Your task to perform on an android device: Open notification settings Image 0: 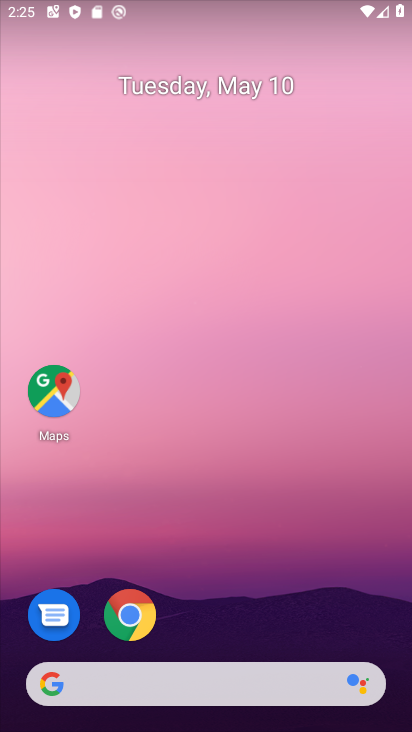
Step 0: drag from (254, 608) to (277, 60)
Your task to perform on an android device: Open notification settings Image 1: 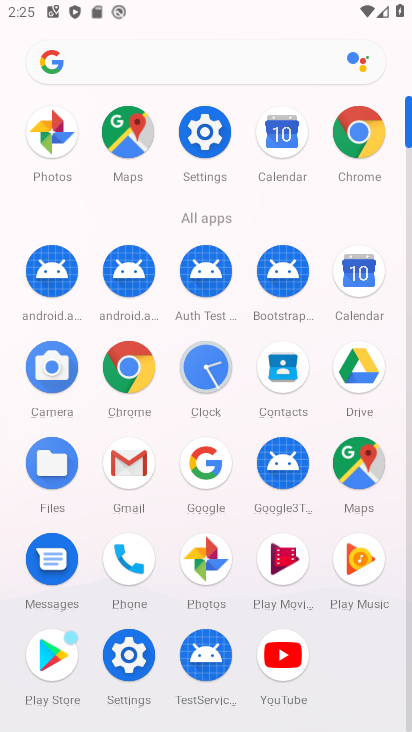
Step 1: click (110, 655)
Your task to perform on an android device: Open notification settings Image 2: 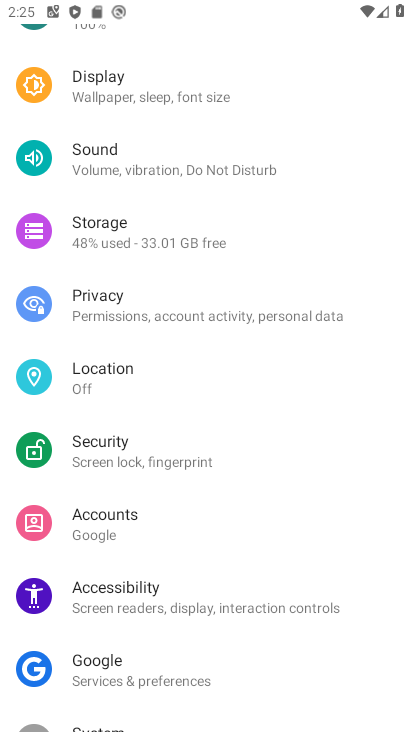
Step 2: drag from (234, 645) to (267, 666)
Your task to perform on an android device: Open notification settings Image 3: 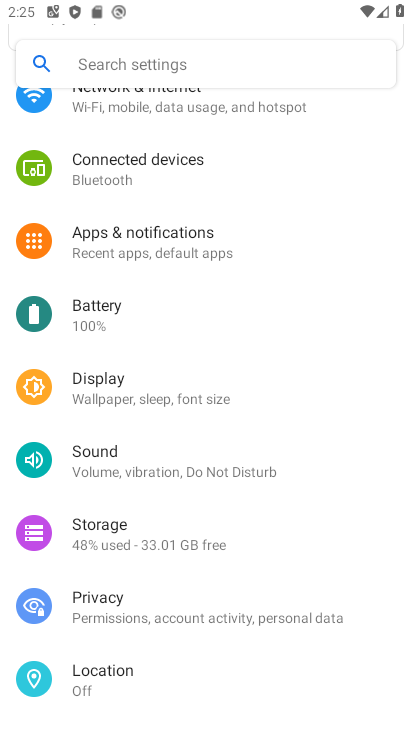
Step 3: click (178, 238)
Your task to perform on an android device: Open notification settings Image 4: 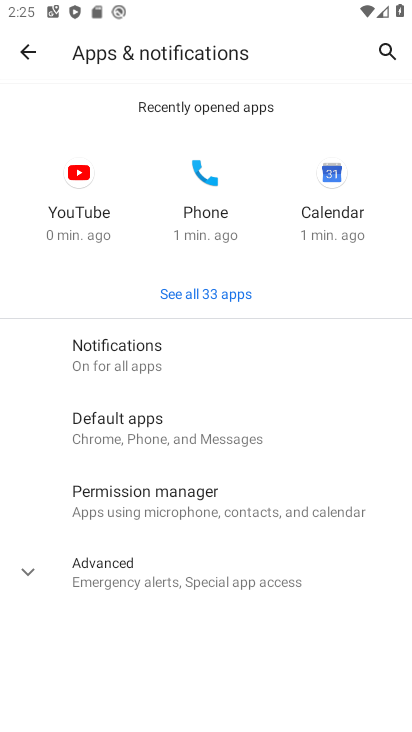
Step 4: click (117, 355)
Your task to perform on an android device: Open notification settings Image 5: 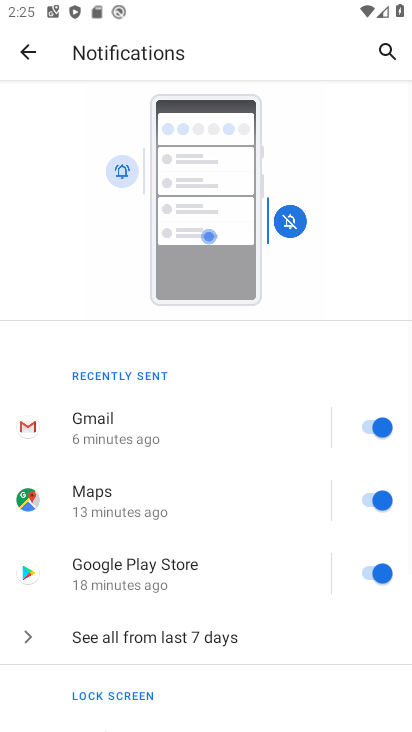
Step 5: task complete